Your task to perform on an android device: open device folders in google photos Image 0: 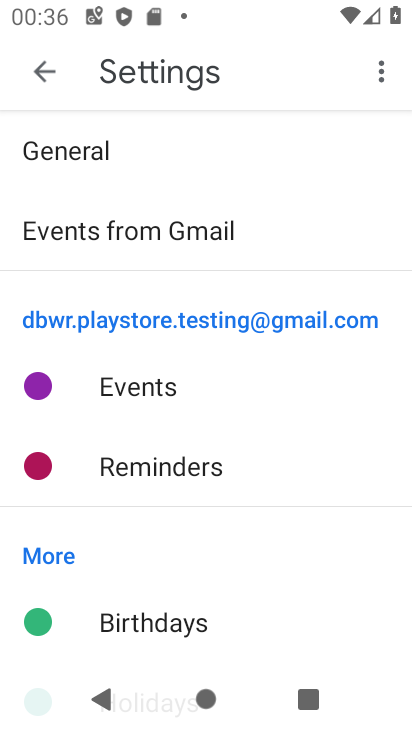
Step 0: drag from (243, 600) to (237, 332)
Your task to perform on an android device: open device folders in google photos Image 1: 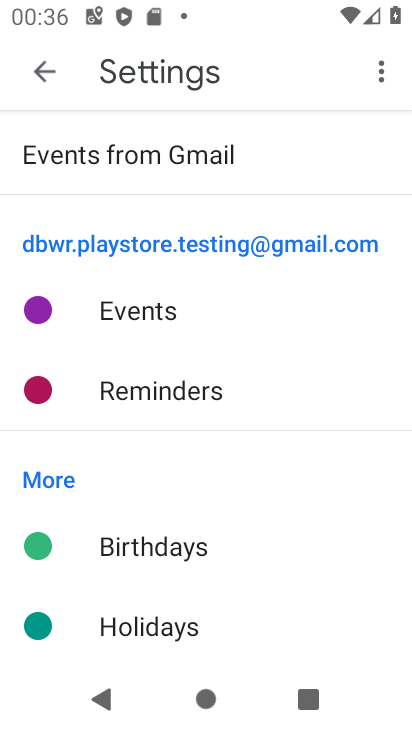
Step 1: press home button
Your task to perform on an android device: open device folders in google photos Image 2: 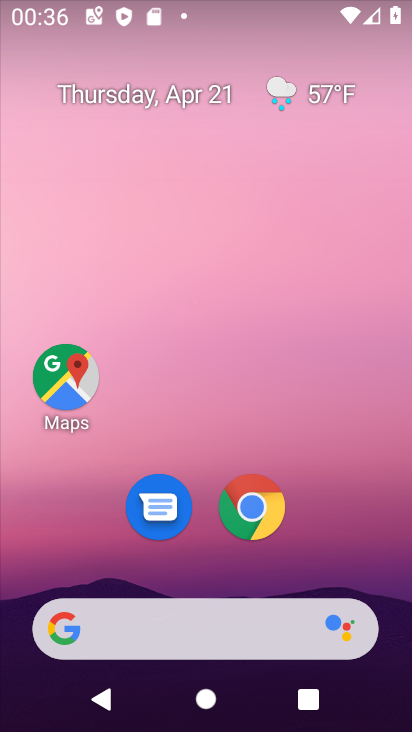
Step 2: drag from (197, 548) to (408, 204)
Your task to perform on an android device: open device folders in google photos Image 3: 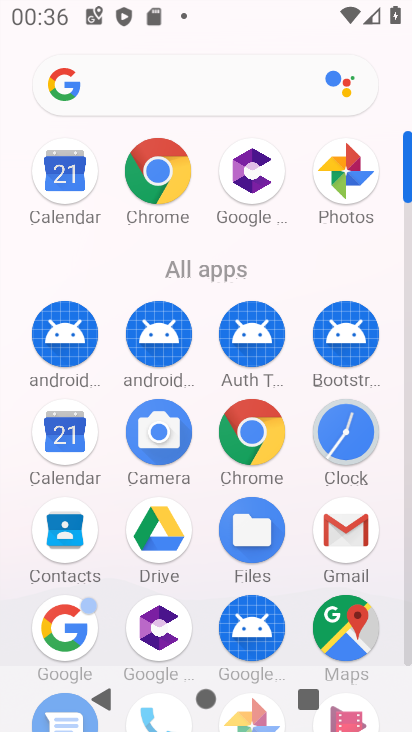
Step 3: drag from (201, 660) to (198, 284)
Your task to perform on an android device: open device folders in google photos Image 4: 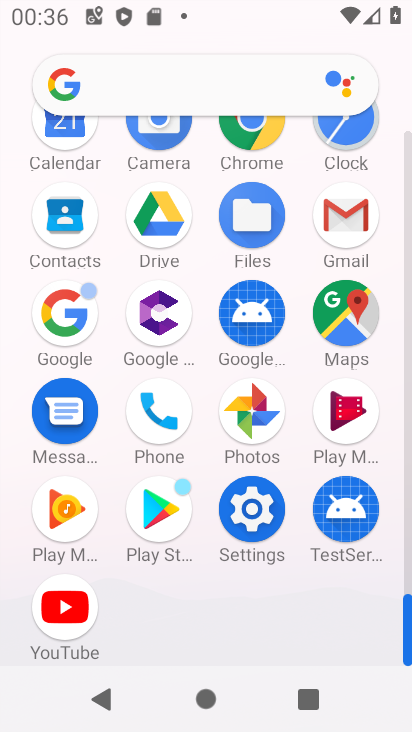
Step 4: click (251, 413)
Your task to perform on an android device: open device folders in google photos Image 5: 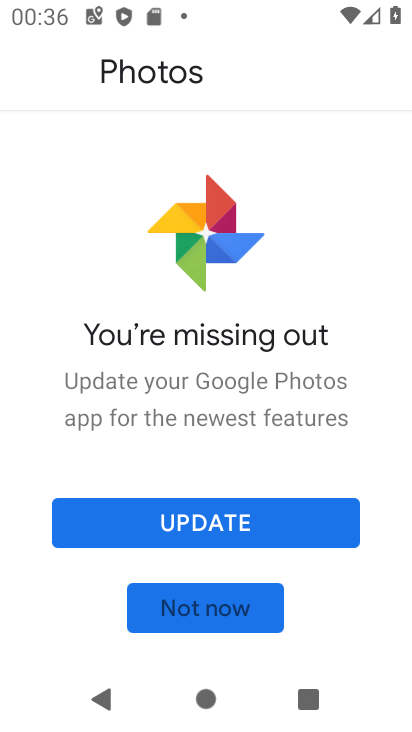
Step 5: click (209, 609)
Your task to perform on an android device: open device folders in google photos Image 6: 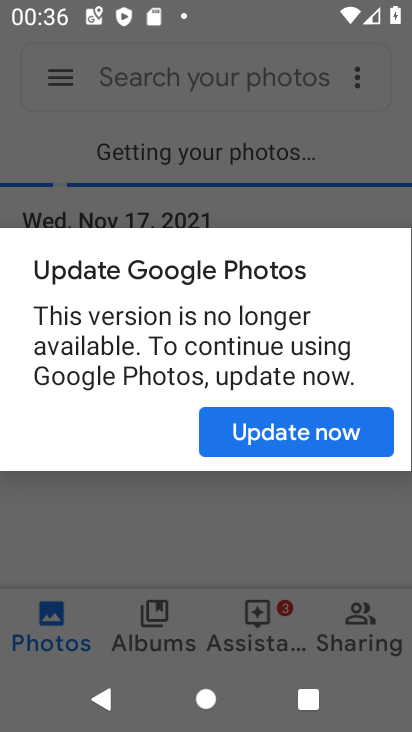
Step 6: click (282, 434)
Your task to perform on an android device: open device folders in google photos Image 7: 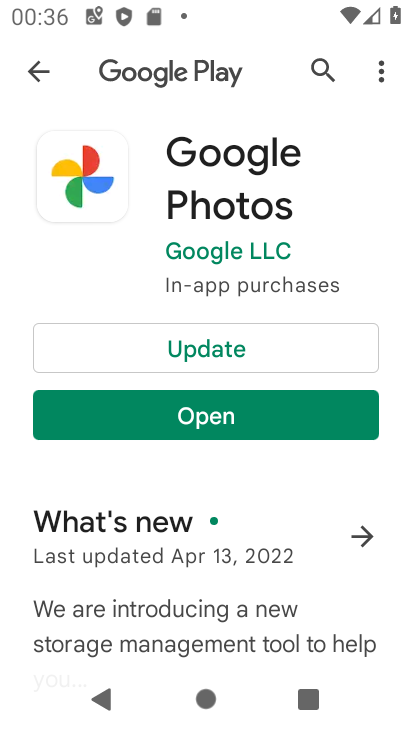
Step 7: click (159, 346)
Your task to perform on an android device: open device folders in google photos Image 8: 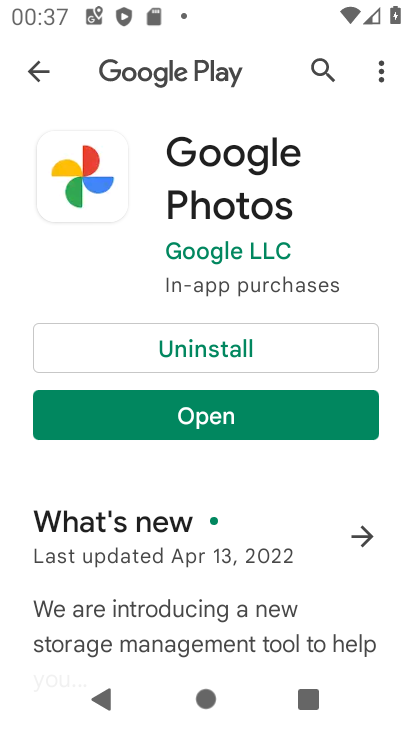
Step 8: click (214, 409)
Your task to perform on an android device: open device folders in google photos Image 9: 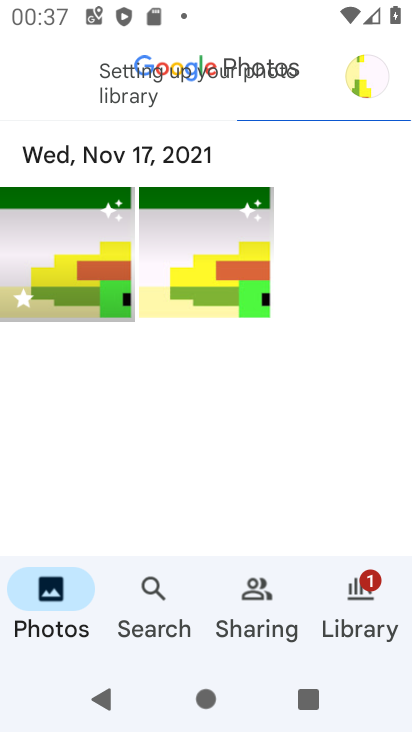
Step 9: click (361, 78)
Your task to perform on an android device: open device folders in google photos Image 10: 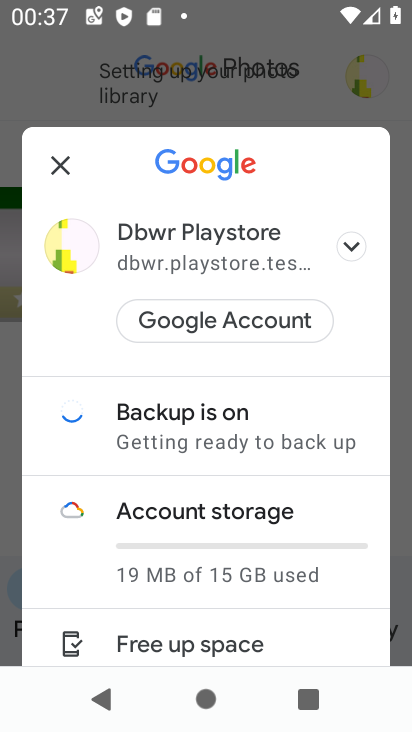
Step 10: click (61, 161)
Your task to perform on an android device: open device folders in google photos Image 11: 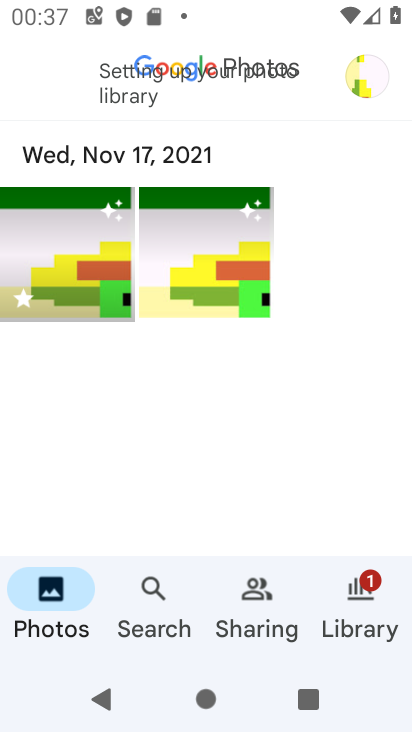
Step 11: click (352, 609)
Your task to perform on an android device: open device folders in google photos Image 12: 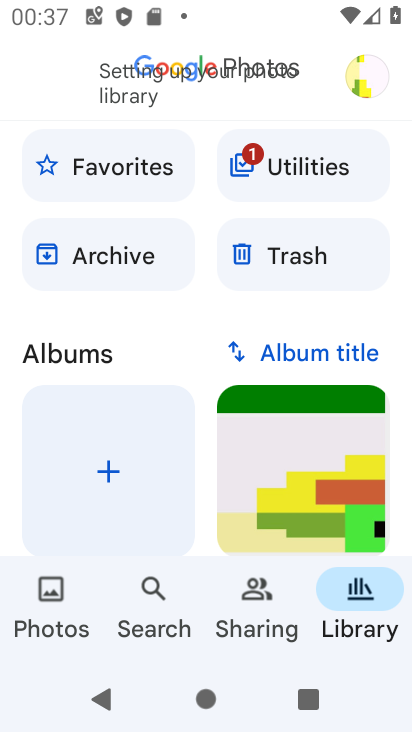
Step 12: task complete